Your task to perform on an android device: Open network settings Image 0: 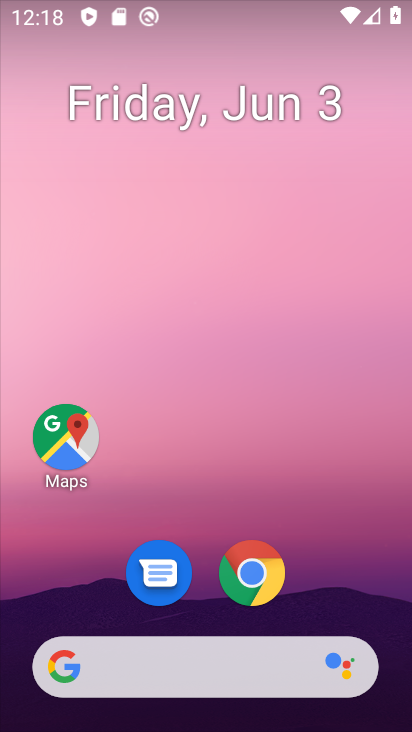
Step 0: drag from (333, 572) to (334, 246)
Your task to perform on an android device: Open network settings Image 1: 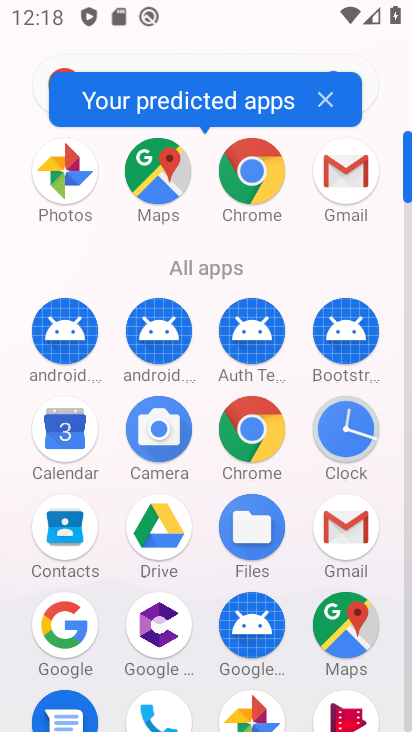
Step 1: task complete